Your task to perform on an android device: Go to Google Image 0: 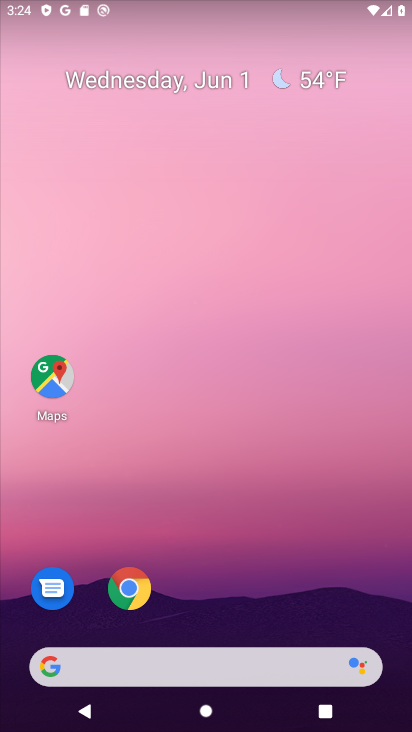
Step 0: click (50, 675)
Your task to perform on an android device: Go to Google Image 1: 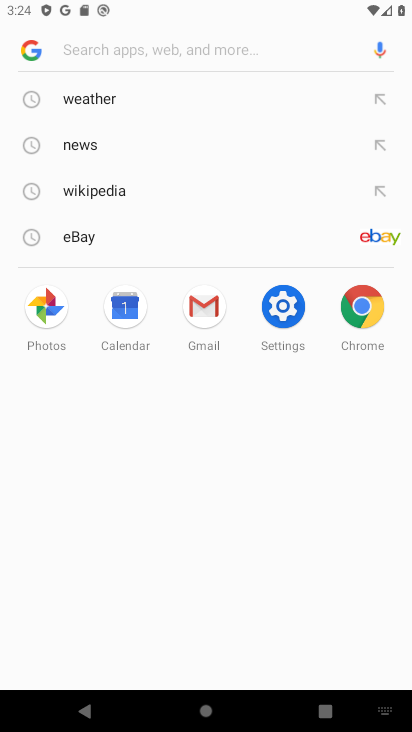
Step 1: click (21, 25)
Your task to perform on an android device: Go to Google Image 2: 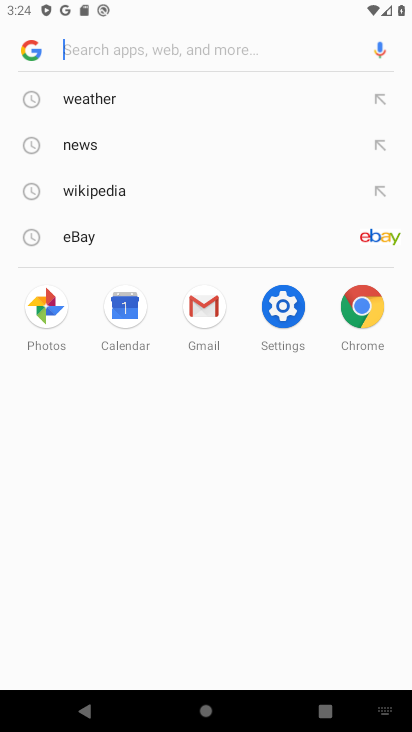
Step 2: click (33, 42)
Your task to perform on an android device: Go to Google Image 3: 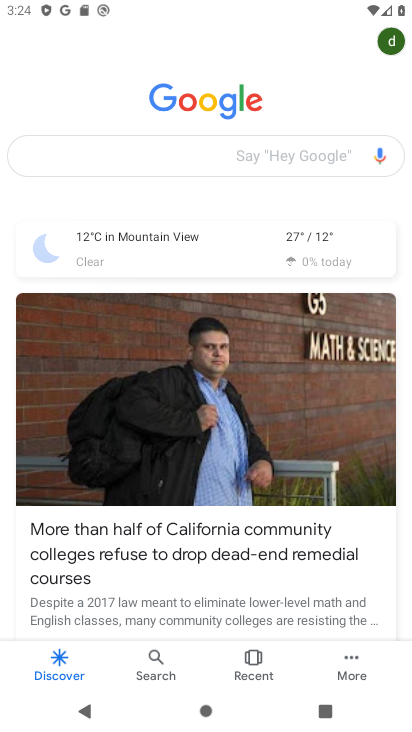
Step 3: task complete